Your task to perform on an android device: Go to internet settings Image 0: 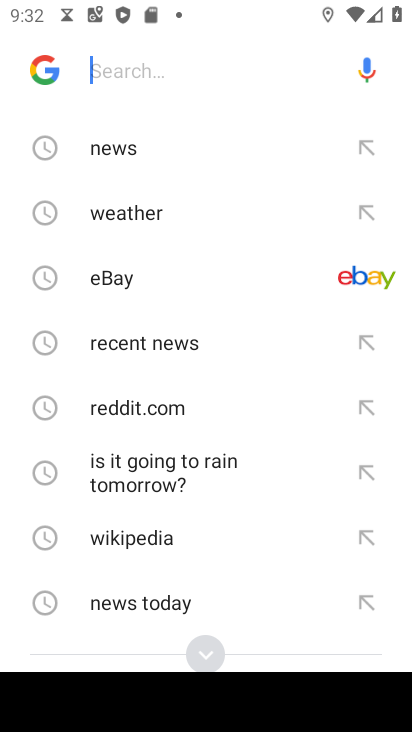
Step 0: press home button
Your task to perform on an android device: Go to internet settings Image 1: 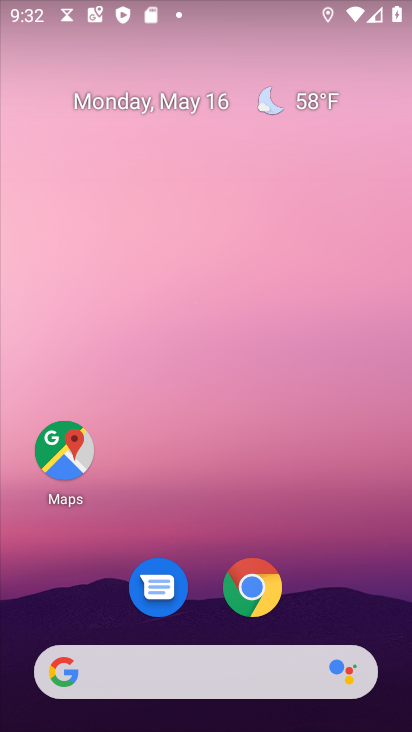
Step 1: drag from (344, 602) to (272, 195)
Your task to perform on an android device: Go to internet settings Image 2: 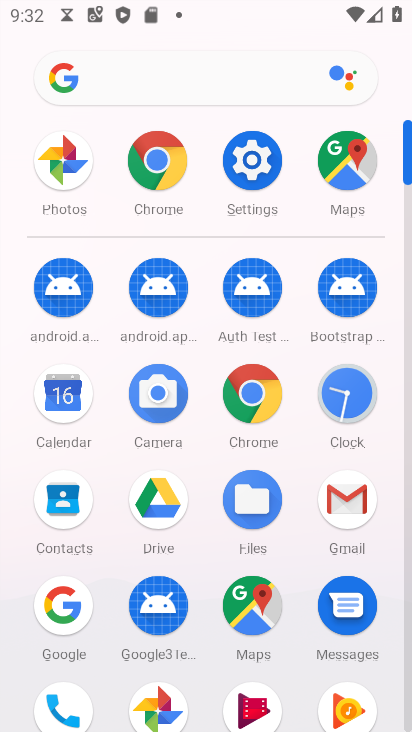
Step 2: click (251, 166)
Your task to perform on an android device: Go to internet settings Image 3: 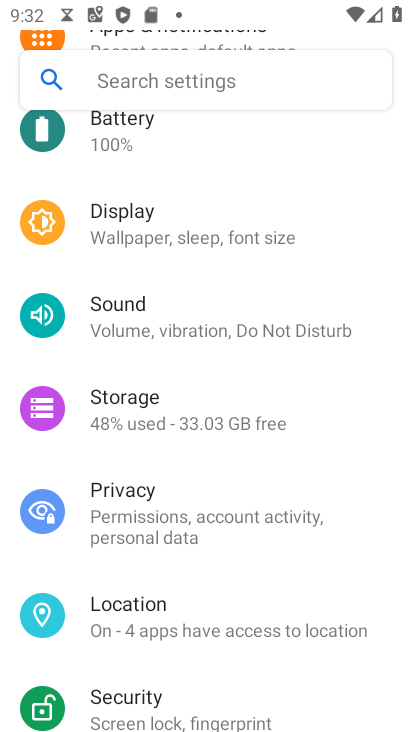
Step 3: drag from (220, 177) to (259, 617)
Your task to perform on an android device: Go to internet settings Image 4: 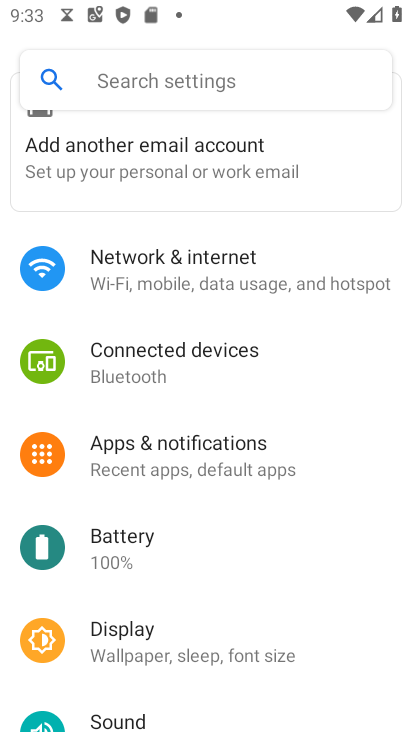
Step 4: click (228, 279)
Your task to perform on an android device: Go to internet settings Image 5: 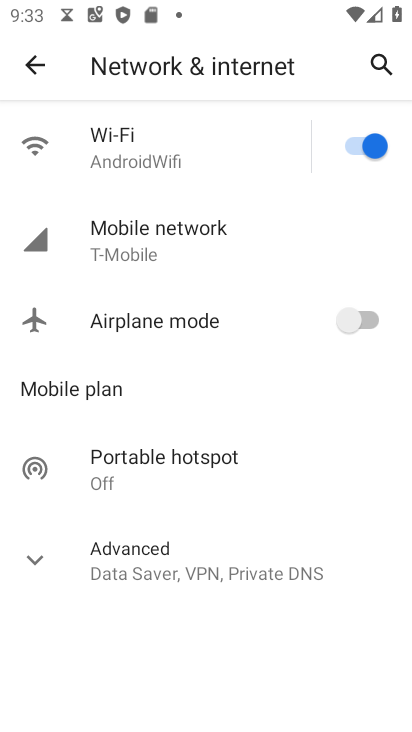
Step 5: task complete